Your task to perform on an android device: change the clock style Image 0: 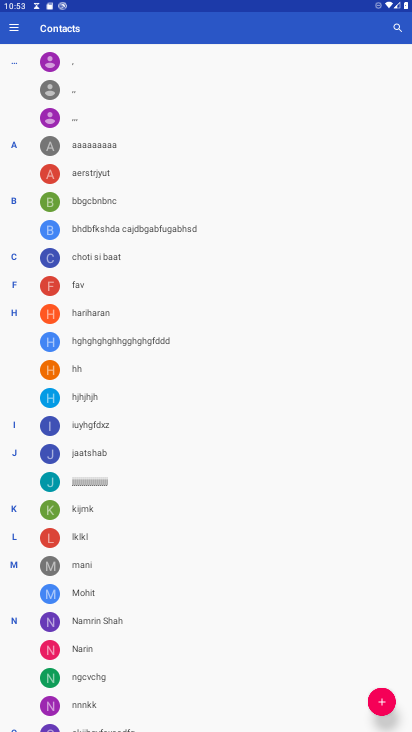
Step 0: press home button
Your task to perform on an android device: change the clock style Image 1: 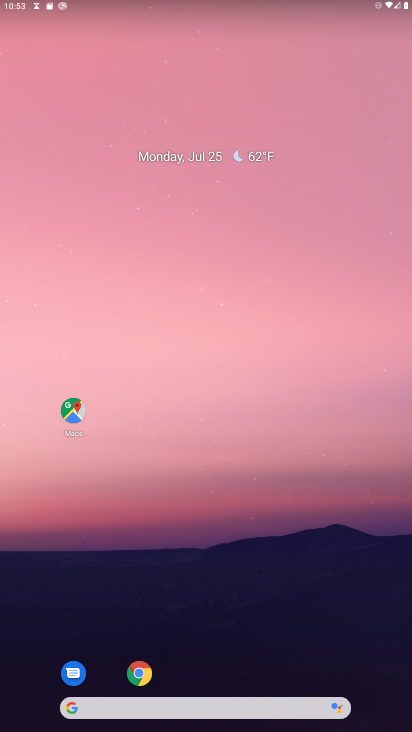
Step 1: drag from (276, 623) to (333, 48)
Your task to perform on an android device: change the clock style Image 2: 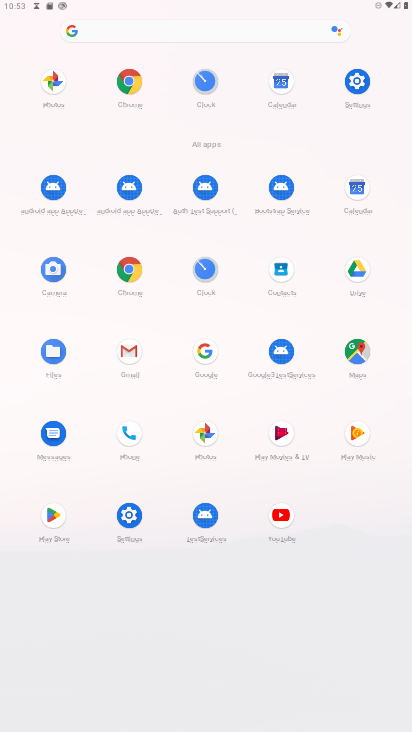
Step 2: click (202, 269)
Your task to perform on an android device: change the clock style Image 3: 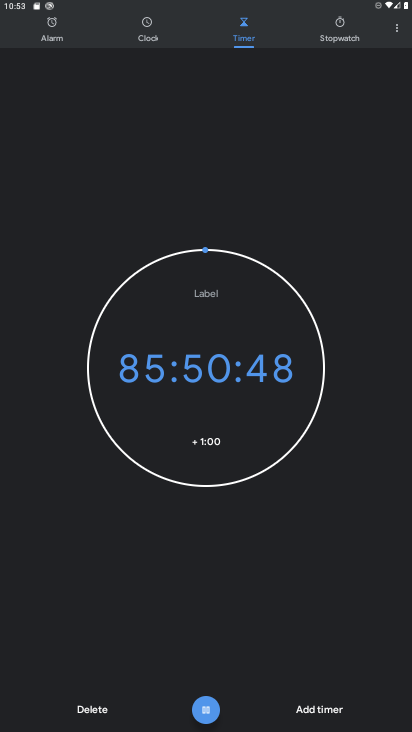
Step 3: click (393, 24)
Your task to perform on an android device: change the clock style Image 4: 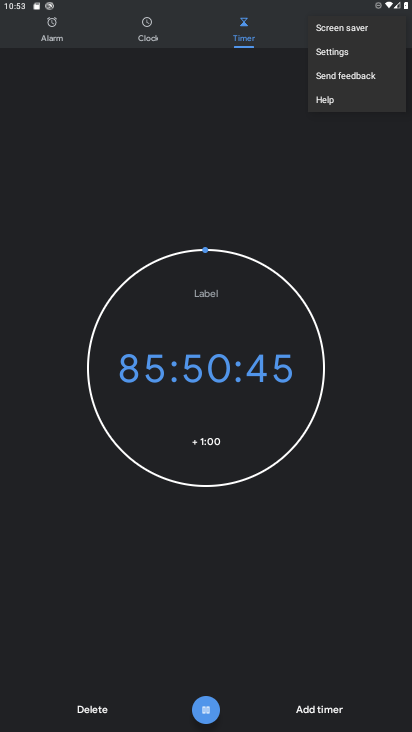
Step 4: click (340, 49)
Your task to perform on an android device: change the clock style Image 5: 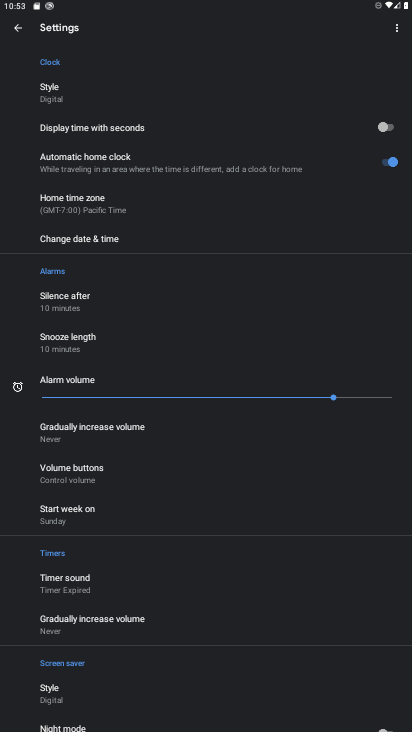
Step 5: click (47, 92)
Your task to perform on an android device: change the clock style Image 6: 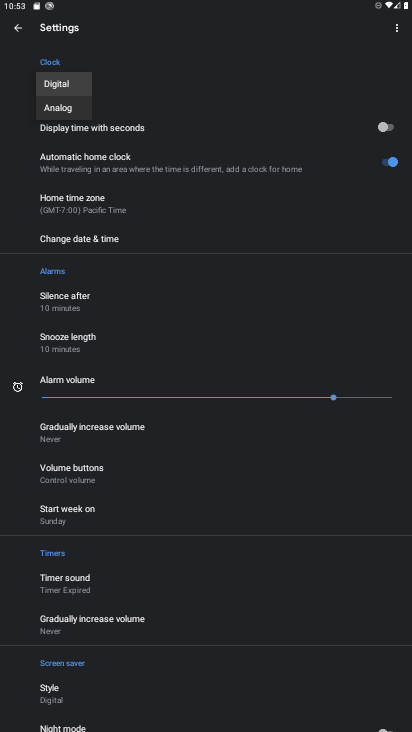
Step 6: click (54, 104)
Your task to perform on an android device: change the clock style Image 7: 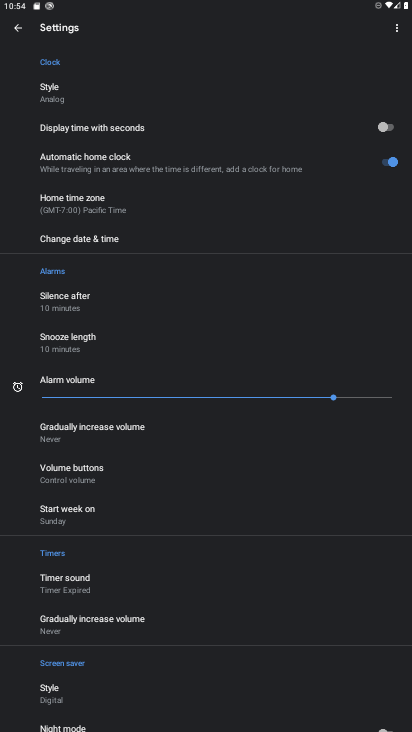
Step 7: task complete